Your task to perform on an android device: allow cookies in the chrome app Image 0: 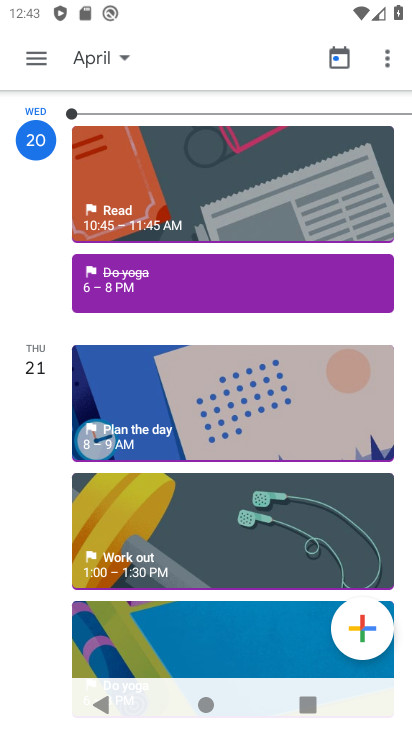
Step 0: press home button
Your task to perform on an android device: allow cookies in the chrome app Image 1: 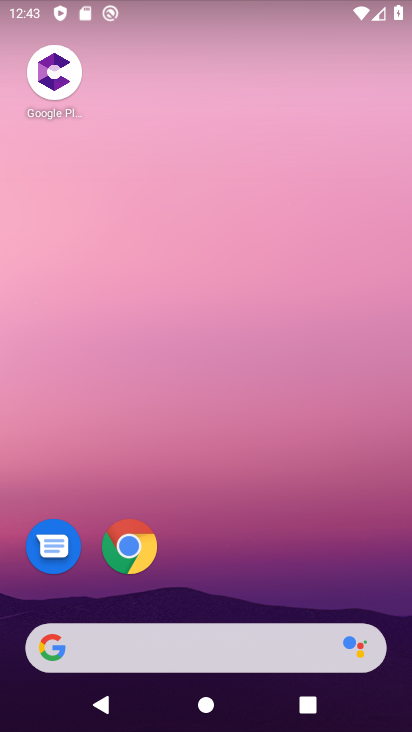
Step 1: click (131, 543)
Your task to perform on an android device: allow cookies in the chrome app Image 2: 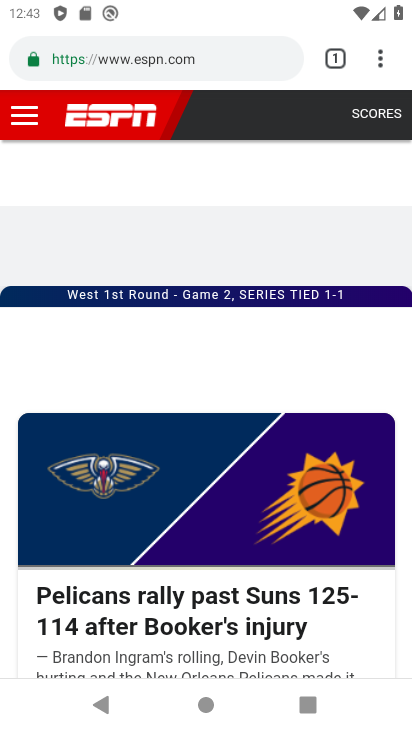
Step 2: click (379, 65)
Your task to perform on an android device: allow cookies in the chrome app Image 3: 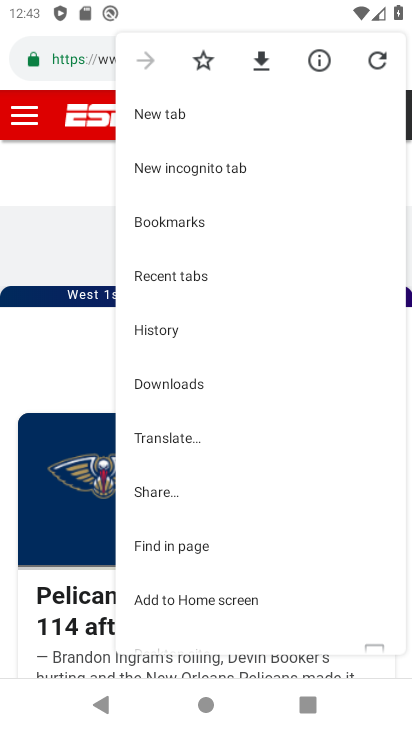
Step 3: drag from (199, 583) to (203, 228)
Your task to perform on an android device: allow cookies in the chrome app Image 4: 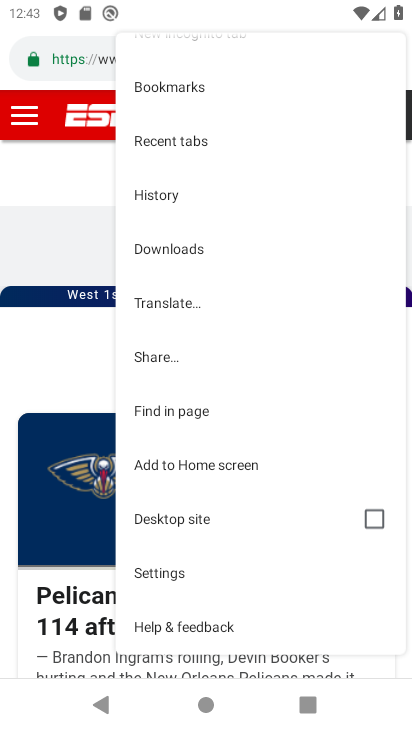
Step 4: click (167, 569)
Your task to perform on an android device: allow cookies in the chrome app Image 5: 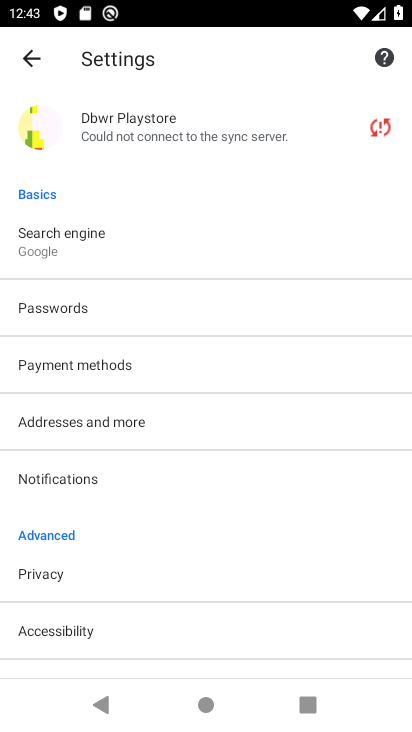
Step 5: drag from (134, 598) to (137, 198)
Your task to perform on an android device: allow cookies in the chrome app Image 6: 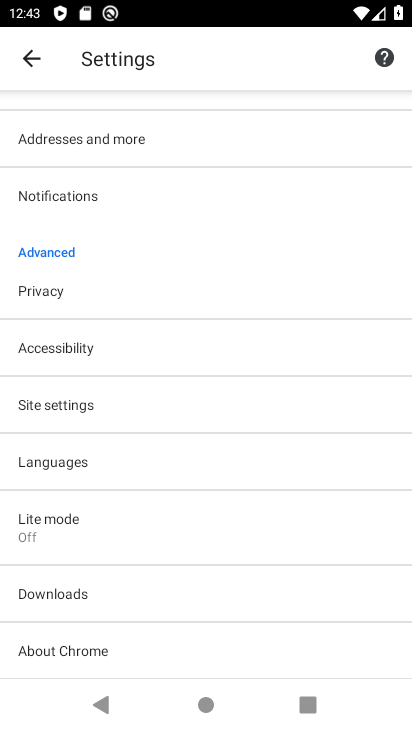
Step 6: click (78, 407)
Your task to perform on an android device: allow cookies in the chrome app Image 7: 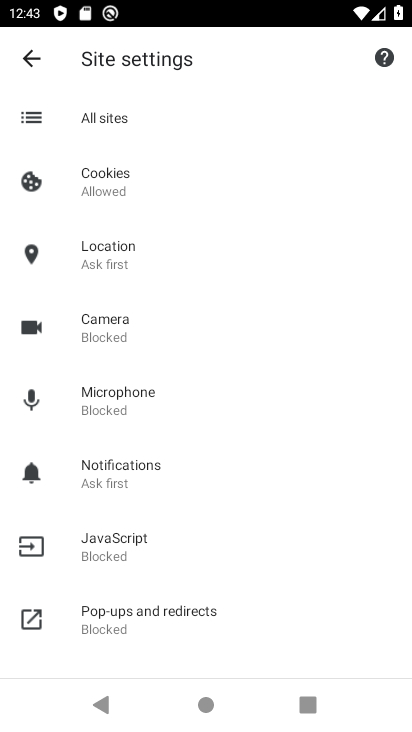
Step 7: click (103, 182)
Your task to perform on an android device: allow cookies in the chrome app Image 8: 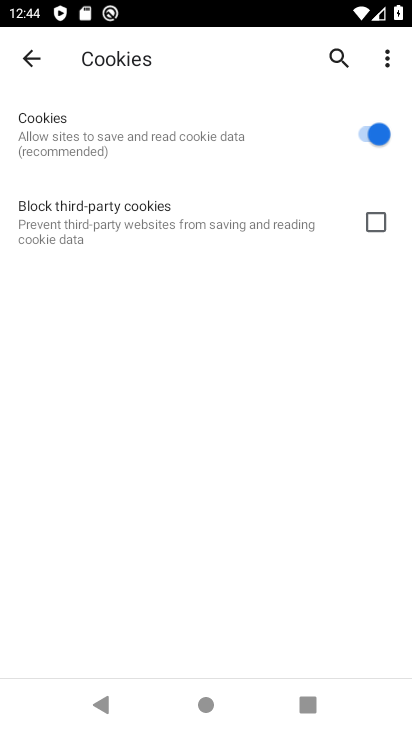
Step 8: task complete